Your task to perform on an android device: Open network settings Image 0: 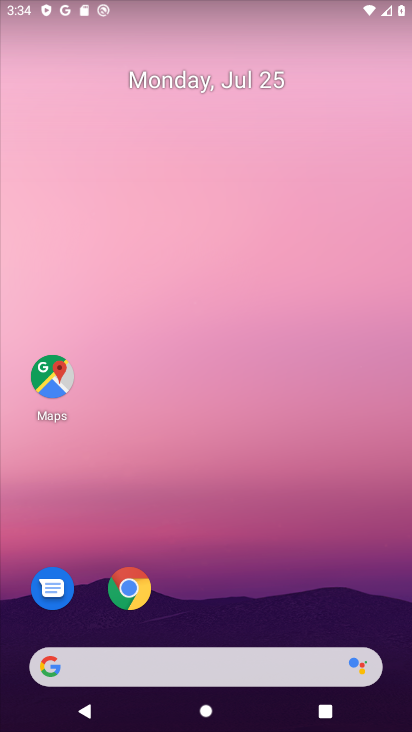
Step 0: press home button
Your task to perform on an android device: Open network settings Image 1: 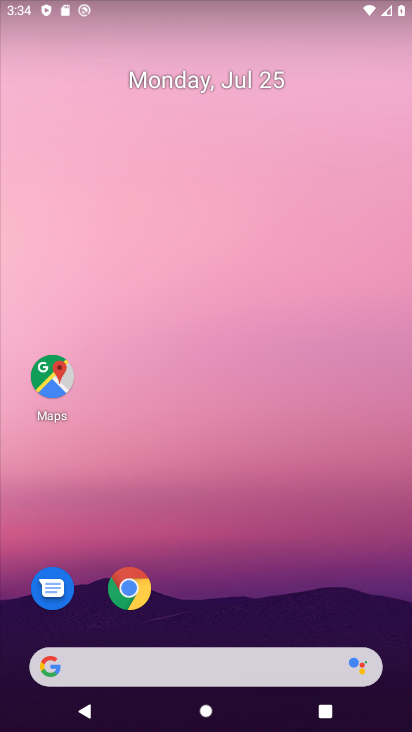
Step 1: drag from (246, 724) to (272, 25)
Your task to perform on an android device: Open network settings Image 2: 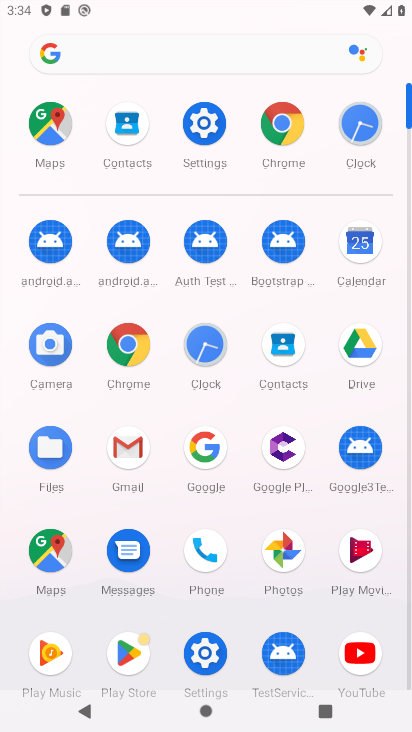
Step 2: click (205, 120)
Your task to perform on an android device: Open network settings Image 3: 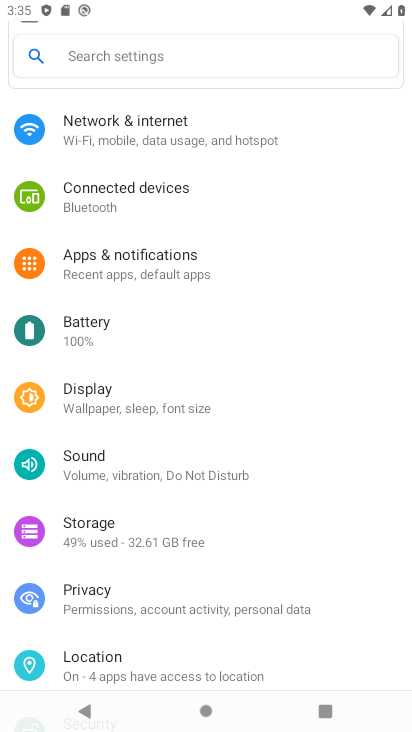
Step 3: click (125, 131)
Your task to perform on an android device: Open network settings Image 4: 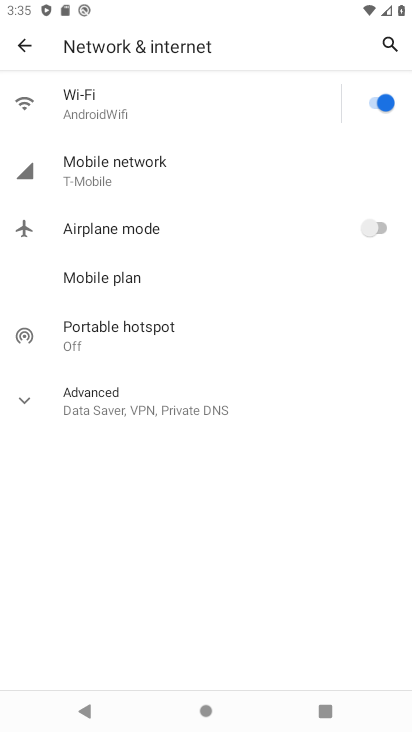
Step 4: task complete